Your task to perform on an android device: turn off data saver in the chrome app Image 0: 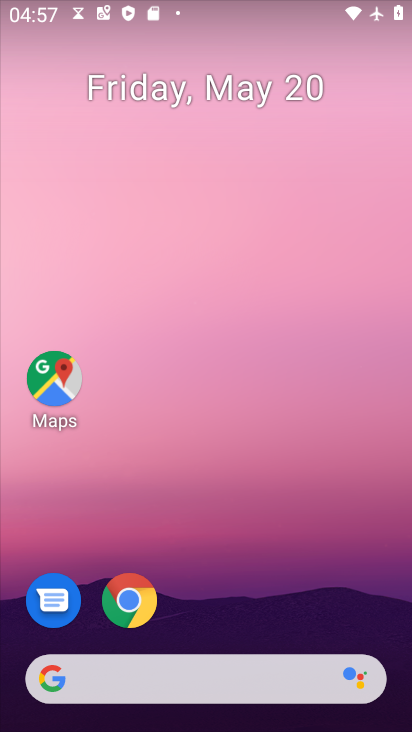
Step 0: drag from (261, 547) to (225, 0)
Your task to perform on an android device: turn off data saver in the chrome app Image 1: 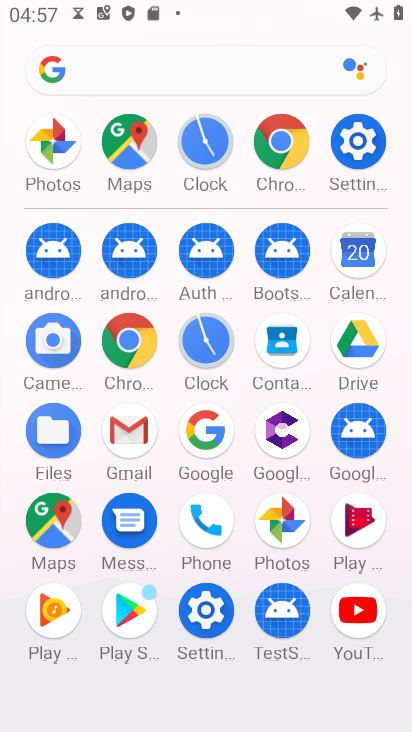
Step 1: drag from (11, 592) to (31, 234)
Your task to perform on an android device: turn off data saver in the chrome app Image 2: 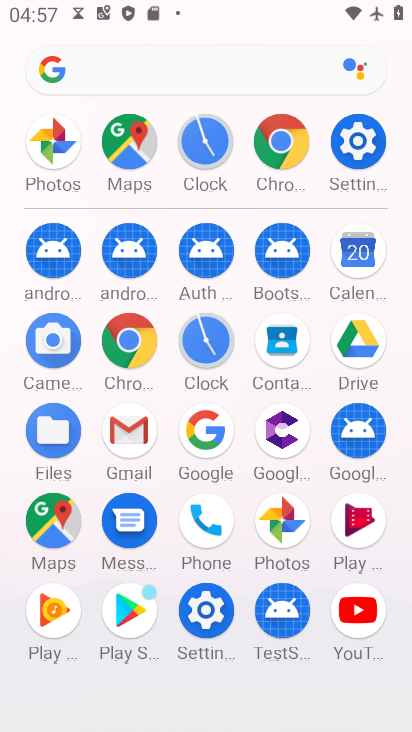
Step 2: click (128, 337)
Your task to perform on an android device: turn off data saver in the chrome app Image 3: 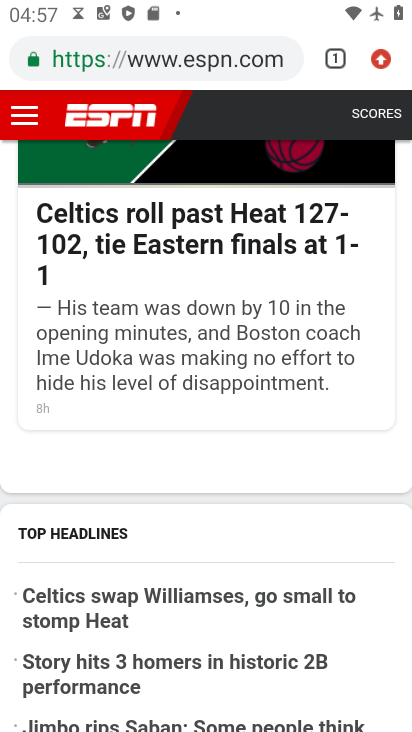
Step 3: drag from (377, 54) to (186, 621)
Your task to perform on an android device: turn off data saver in the chrome app Image 4: 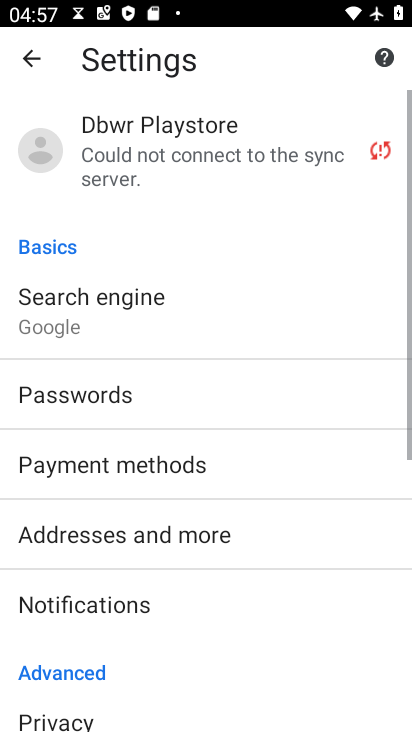
Step 4: drag from (233, 607) to (218, 193)
Your task to perform on an android device: turn off data saver in the chrome app Image 5: 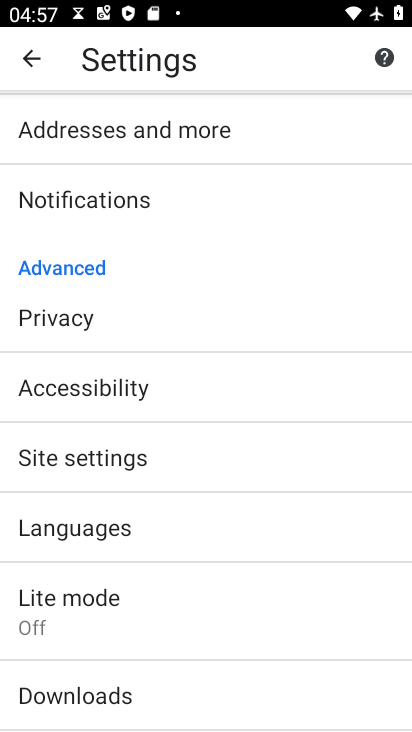
Step 5: drag from (176, 608) to (192, 254)
Your task to perform on an android device: turn off data saver in the chrome app Image 6: 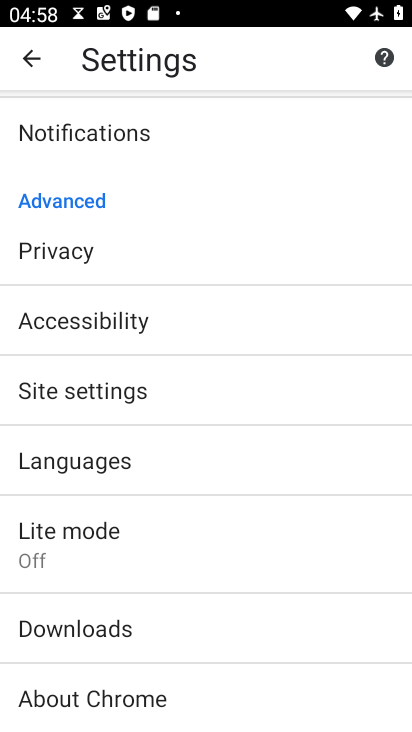
Step 6: click (134, 553)
Your task to perform on an android device: turn off data saver in the chrome app Image 7: 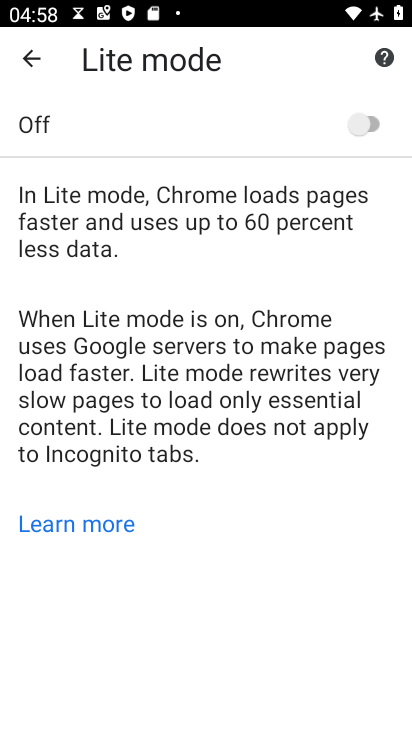
Step 7: task complete